Your task to perform on an android device: Open CNN.com Image 0: 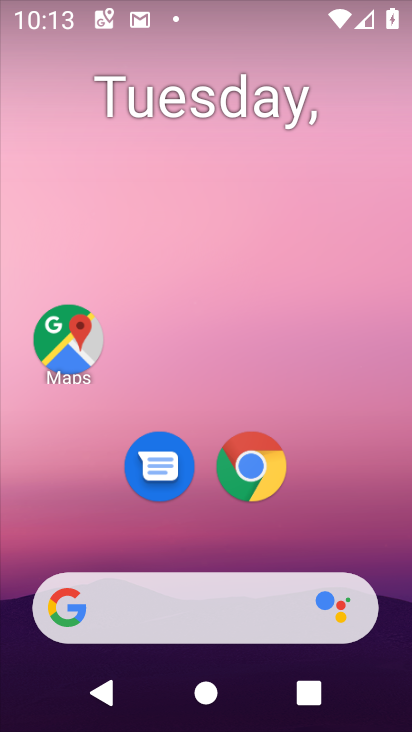
Step 0: press home button
Your task to perform on an android device: Open CNN.com Image 1: 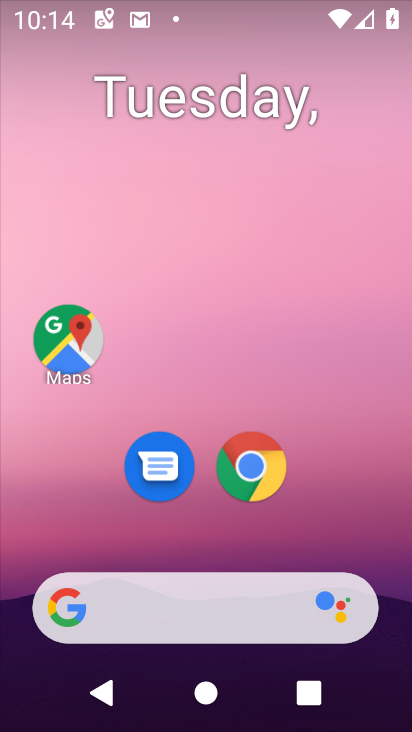
Step 1: drag from (280, 644) to (373, 59)
Your task to perform on an android device: Open CNN.com Image 2: 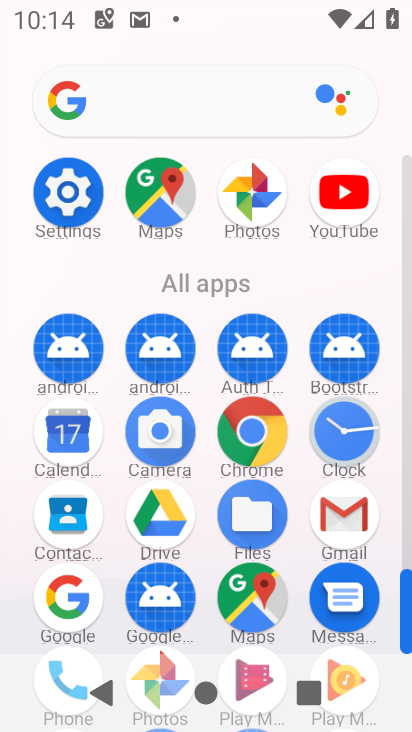
Step 2: click (239, 442)
Your task to perform on an android device: Open CNN.com Image 3: 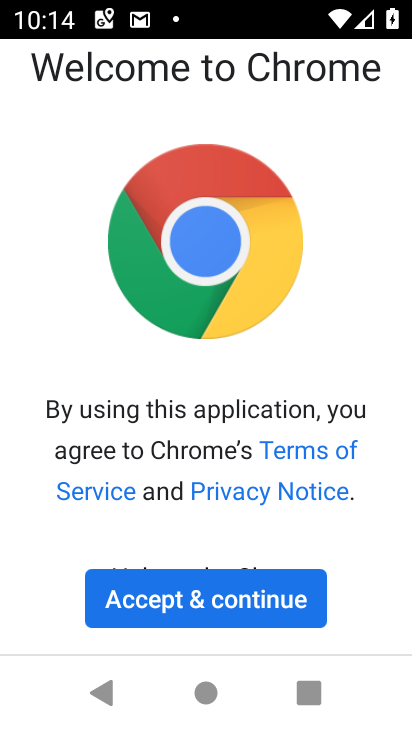
Step 3: click (200, 598)
Your task to perform on an android device: Open CNN.com Image 4: 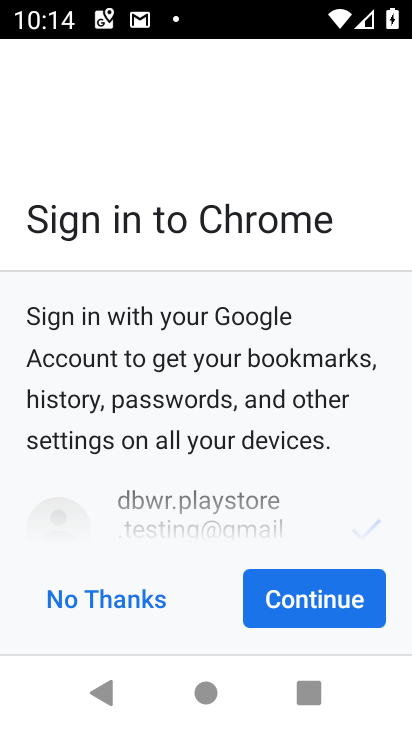
Step 4: click (313, 612)
Your task to perform on an android device: Open CNN.com Image 5: 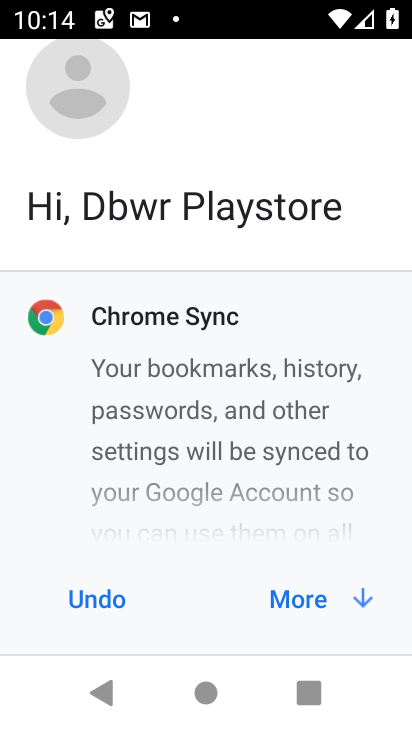
Step 5: click (353, 600)
Your task to perform on an android device: Open CNN.com Image 6: 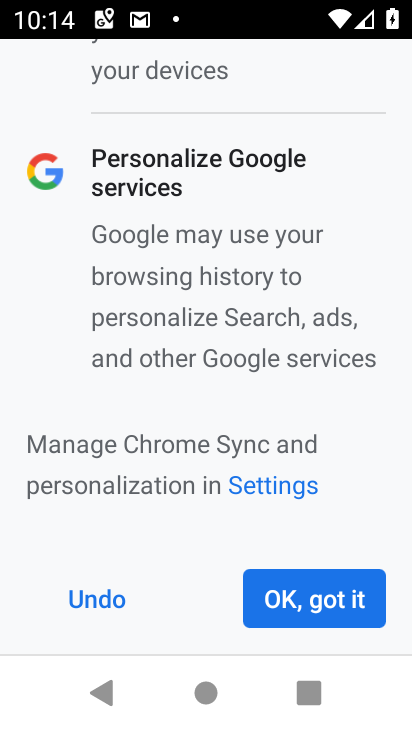
Step 6: click (325, 598)
Your task to perform on an android device: Open CNN.com Image 7: 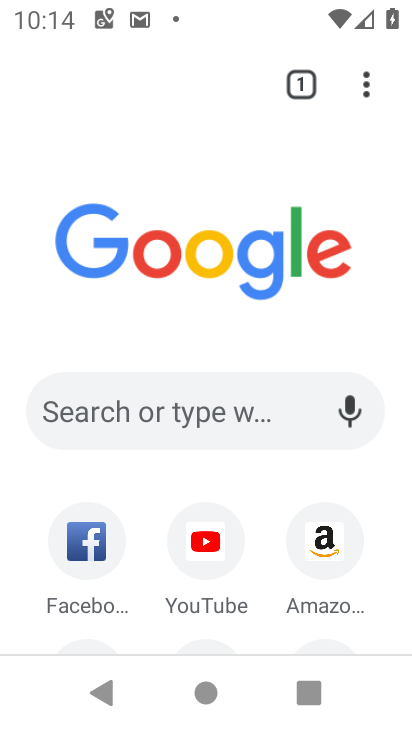
Step 7: click (177, 419)
Your task to perform on an android device: Open CNN.com Image 8: 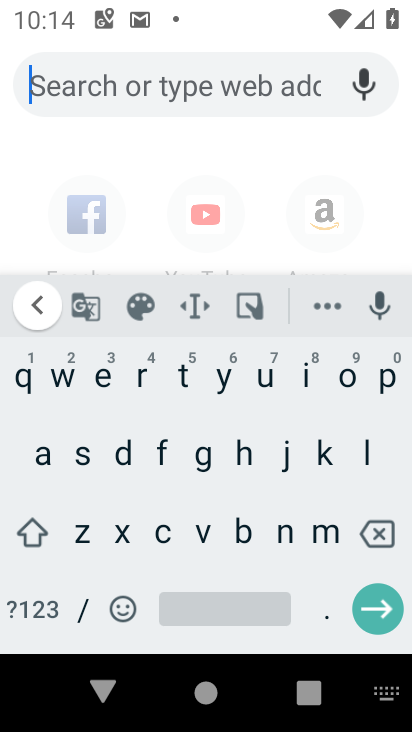
Step 8: click (165, 546)
Your task to perform on an android device: Open CNN.com Image 9: 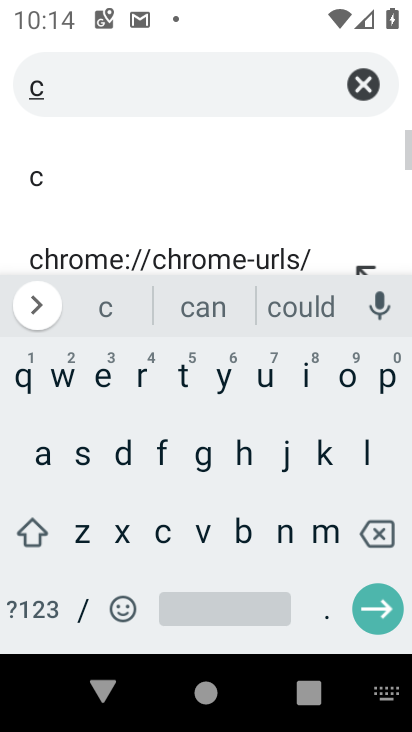
Step 9: click (291, 534)
Your task to perform on an android device: Open CNN.com Image 10: 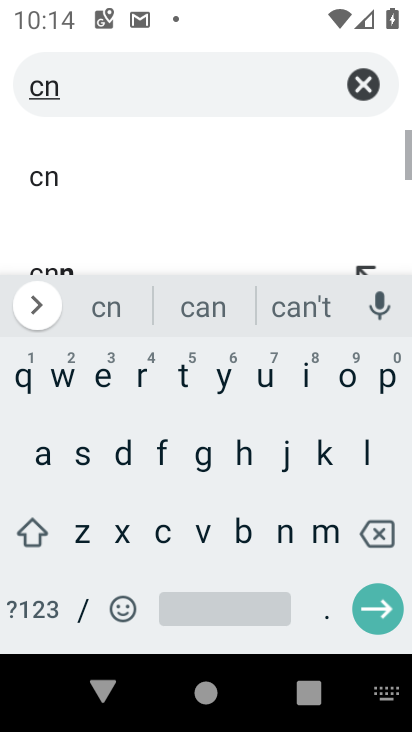
Step 10: click (288, 534)
Your task to perform on an android device: Open CNN.com Image 11: 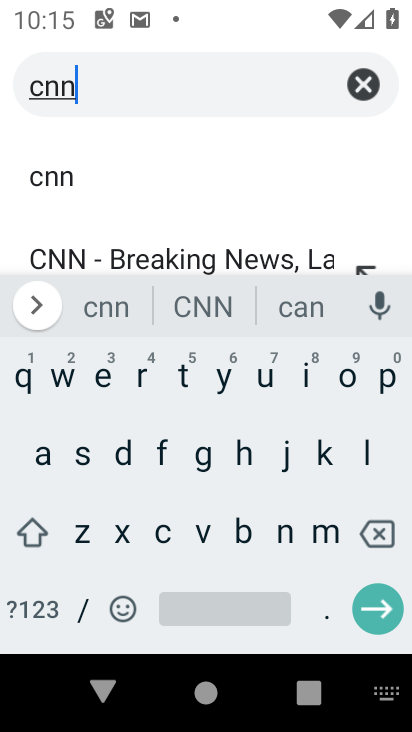
Step 11: click (330, 616)
Your task to perform on an android device: Open CNN.com Image 12: 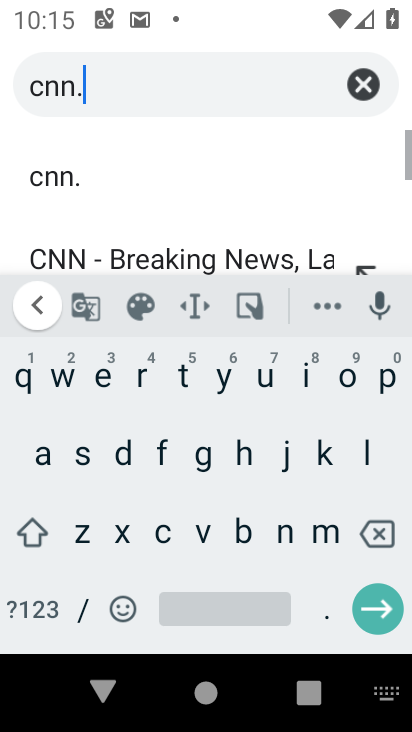
Step 12: click (164, 527)
Your task to perform on an android device: Open CNN.com Image 13: 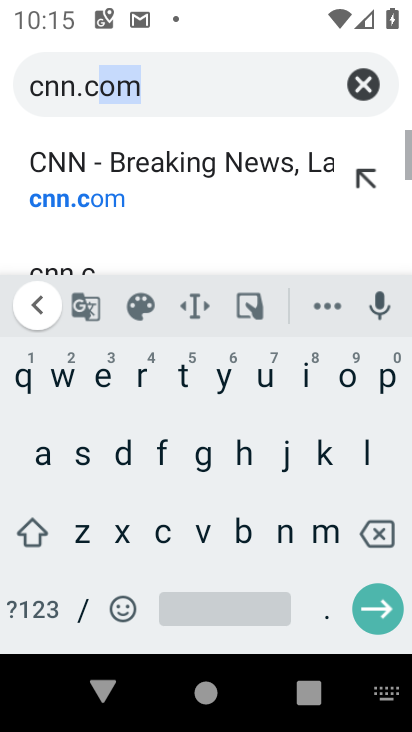
Step 13: click (356, 378)
Your task to perform on an android device: Open CNN.com Image 14: 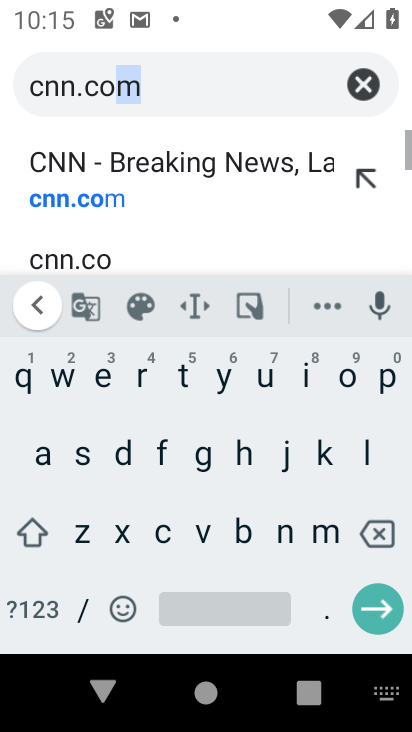
Step 14: click (189, 99)
Your task to perform on an android device: Open CNN.com Image 15: 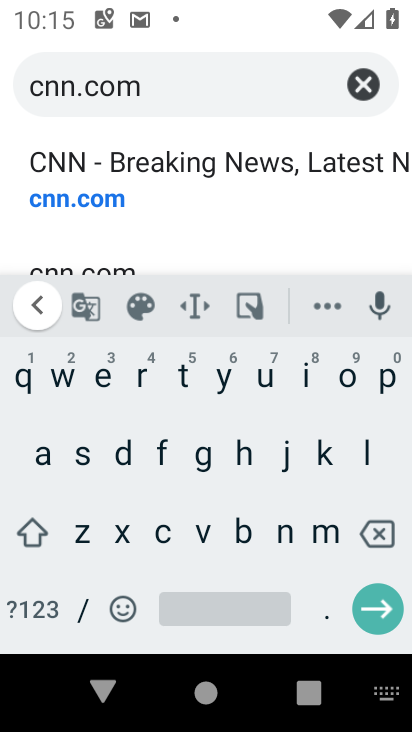
Step 15: click (372, 601)
Your task to perform on an android device: Open CNN.com Image 16: 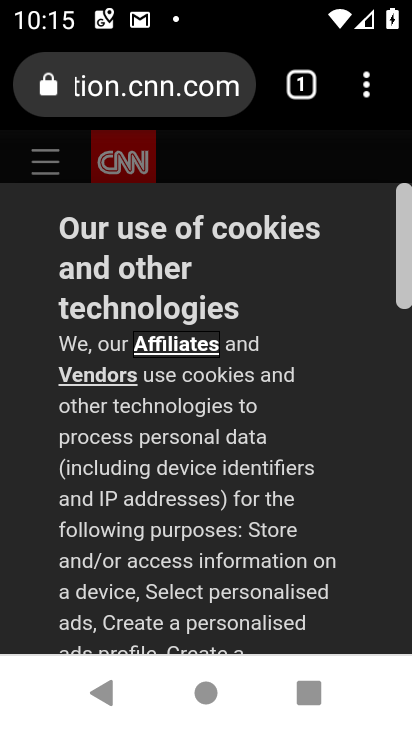
Step 16: task complete